Your task to perform on an android device: Check my gmail Image 0: 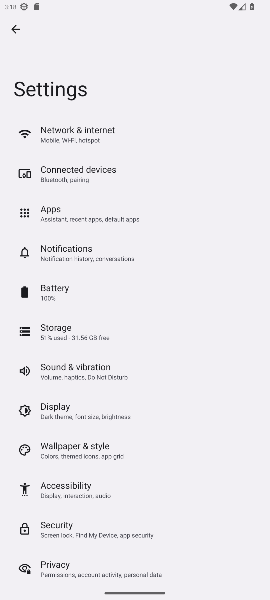
Step 0: press home button
Your task to perform on an android device: Check my gmail Image 1: 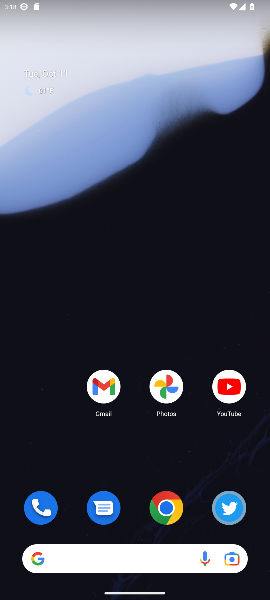
Step 1: click (77, 423)
Your task to perform on an android device: Check my gmail Image 2: 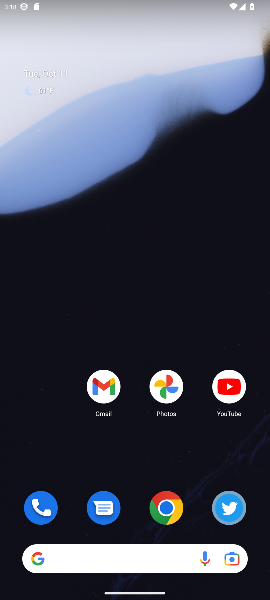
Step 2: click (102, 393)
Your task to perform on an android device: Check my gmail Image 3: 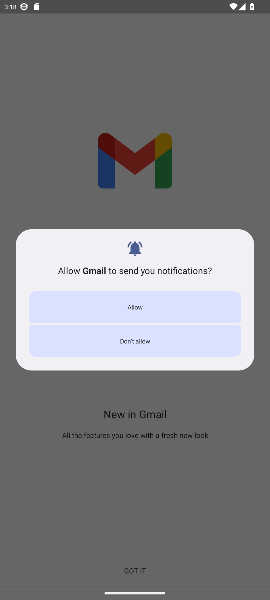
Step 3: click (138, 309)
Your task to perform on an android device: Check my gmail Image 4: 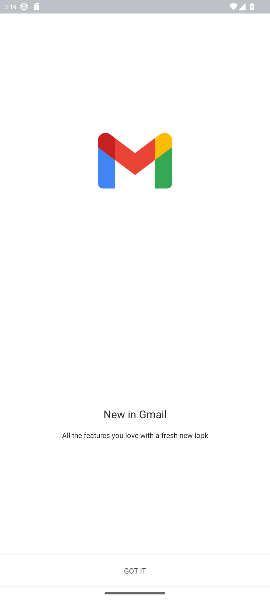
Step 4: click (133, 568)
Your task to perform on an android device: Check my gmail Image 5: 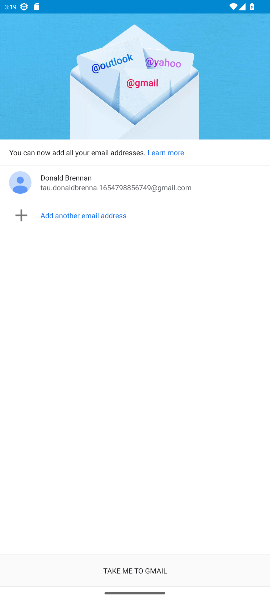
Step 5: click (126, 567)
Your task to perform on an android device: Check my gmail Image 6: 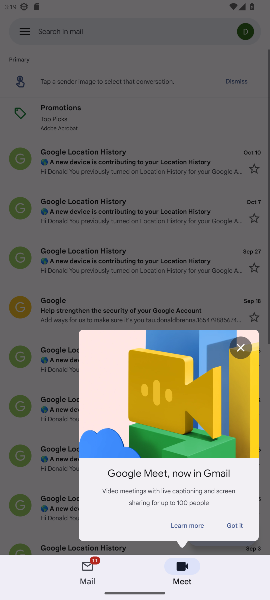
Step 6: click (240, 344)
Your task to perform on an android device: Check my gmail Image 7: 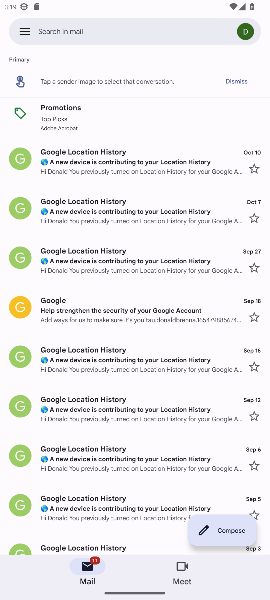
Step 7: click (24, 31)
Your task to perform on an android device: Check my gmail Image 8: 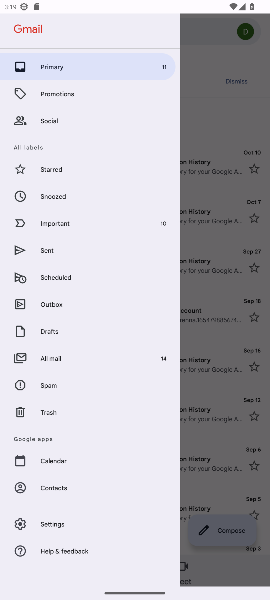
Step 8: click (227, 238)
Your task to perform on an android device: Check my gmail Image 9: 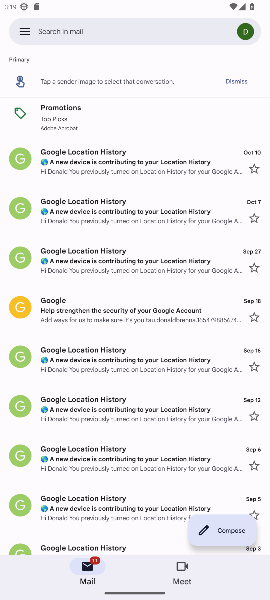
Step 9: drag from (185, 376) to (168, 197)
Your task to perform on an android device: Check my gmail Image 10: 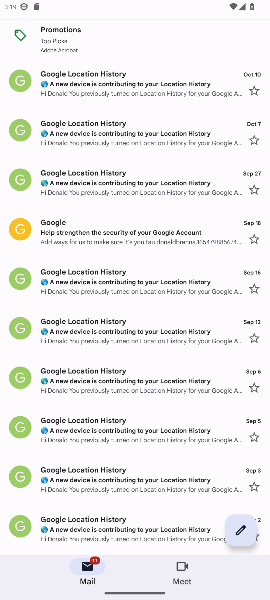
Step 10: drag from (154, 313) to (156, 554)
Your task to perform on an android device: Check my gmail Image 11: 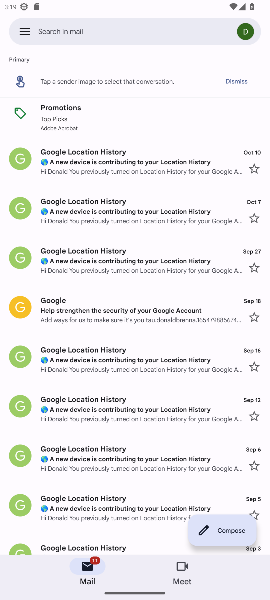
Step 11: click (240, 31)
Your task to perform on an android device: Check my gmail Image 12: 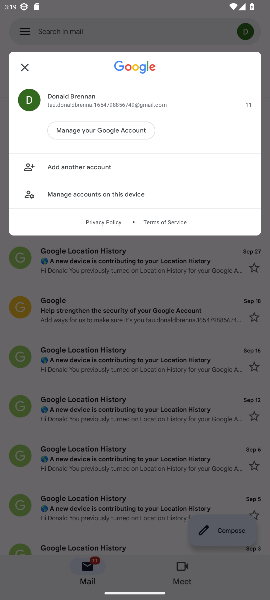
Step 12: task complete